Your task to perform on an android device: find which apps use the phone's location Image 0: 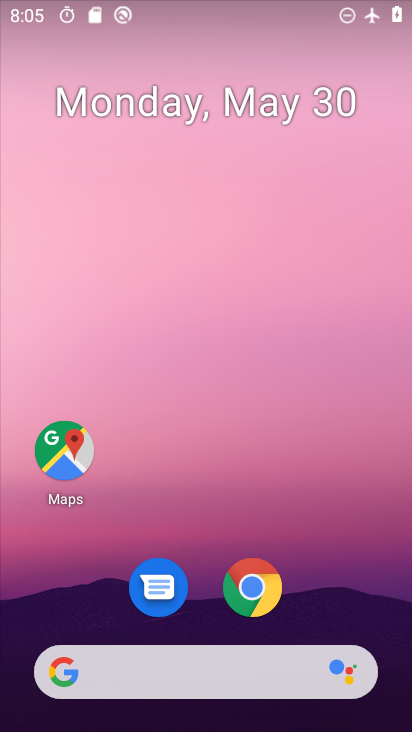
Step 0: drag from (324, 579) to (199, 39)
Your task to perform on an android device: find which apps use the phone's location Image 1: 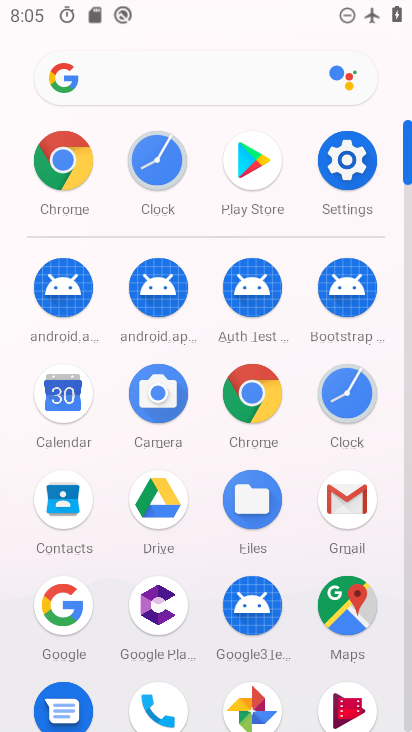
Step 1: drag from (16, 557) to (17, 179)
Your task to perform on an android device: find which apps use the phone's location Image 2: 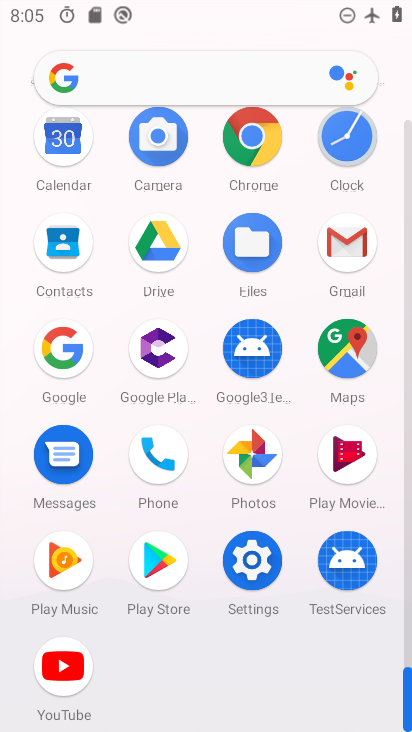
Step 2: click (250, 559)
Your task to perform on an android device: find which apps use the phone's location Image 3: 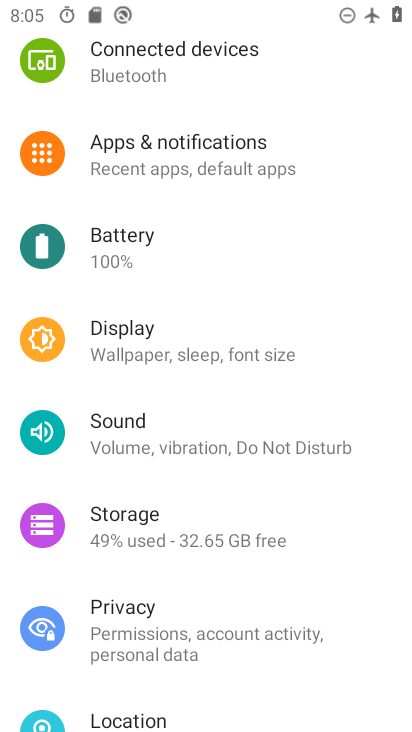
Step 3: drag from (188, 669) to (247, 358)
Your task to perform on an android device: find which apps use the phone's location Image 4: 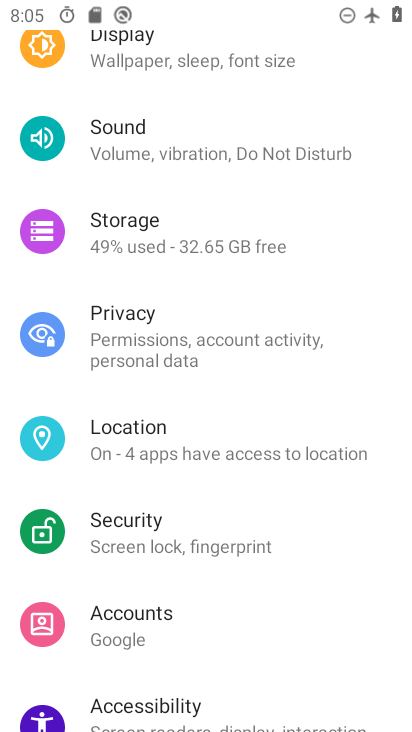
Step 4: drag from (254, 183) to (255, 656)
Your task to perform on an android device: find which apps use the phone's location Image 5: 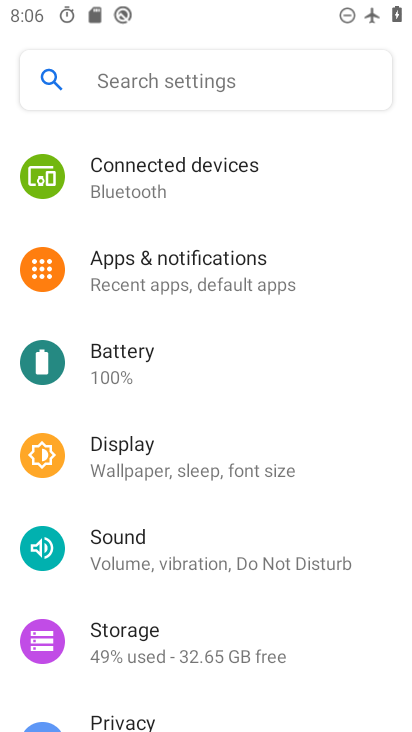
Step 5: click (232, 270)
Your task to perform on an android device: find which apps use the phone's location Image 6: 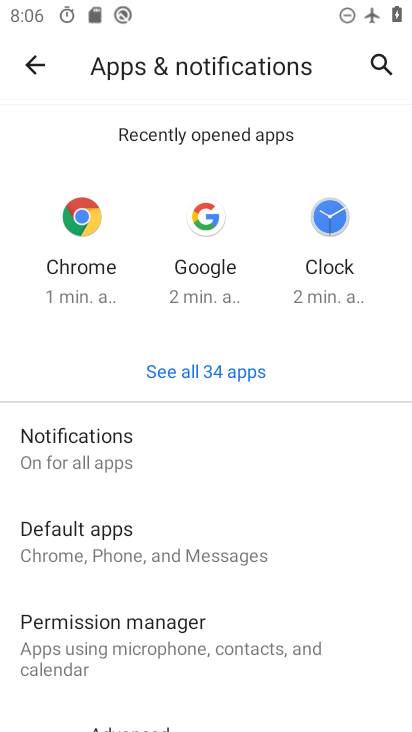
Step 6: press back button
Your task to perform on an android device: find which apps use the phone's location Image 7: 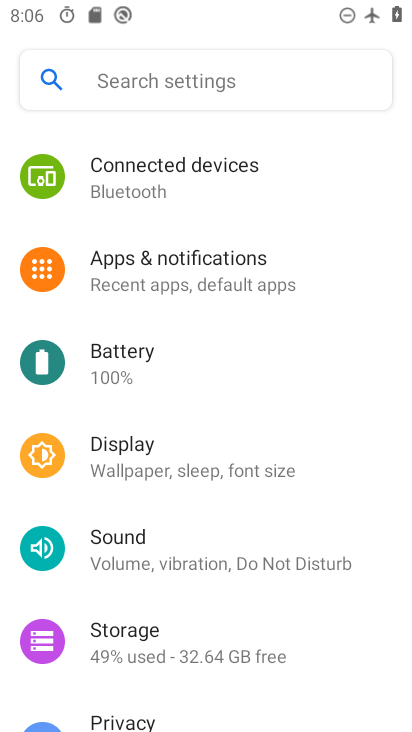
Step 7: drag from (296, 613) to (298, 208)
Your task to perform on an android device: find which apps use the phone's location Image 8: 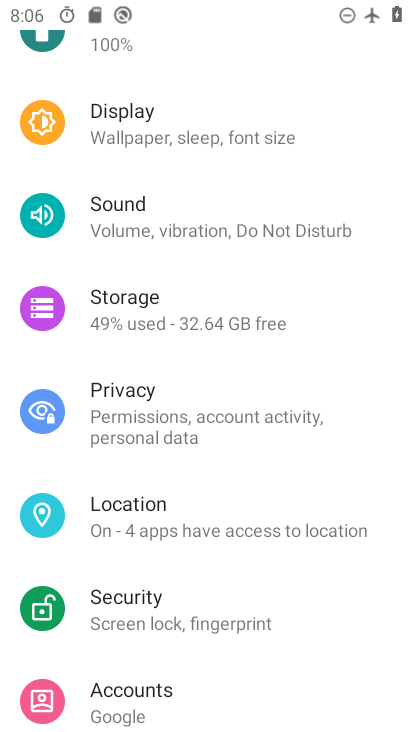
Step 8: click (187, 513)
Your task to perform on an android device: find which apps use the phone's location Image 9: 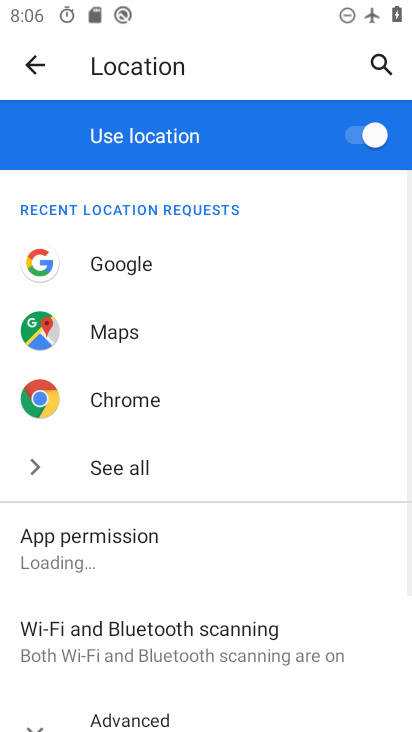
Step 9: drag from (250, 546) to (273, 101)
Your task to perform on an android device: find which apps use the phone's location Image 10: 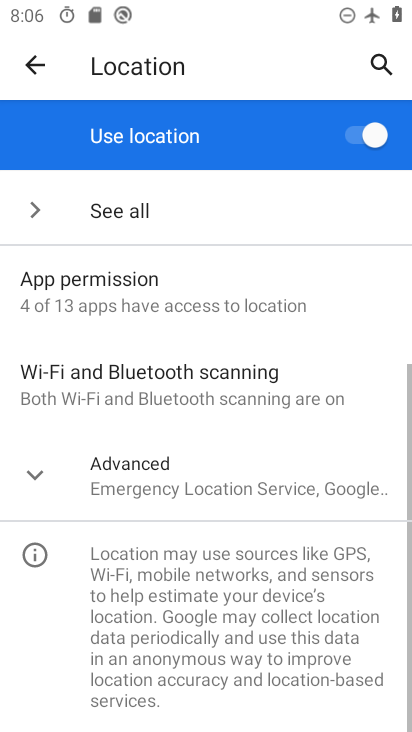
Step 10: click (34, 475)
Your task to perform on an android device: find which apps use the phone's location Image 11: 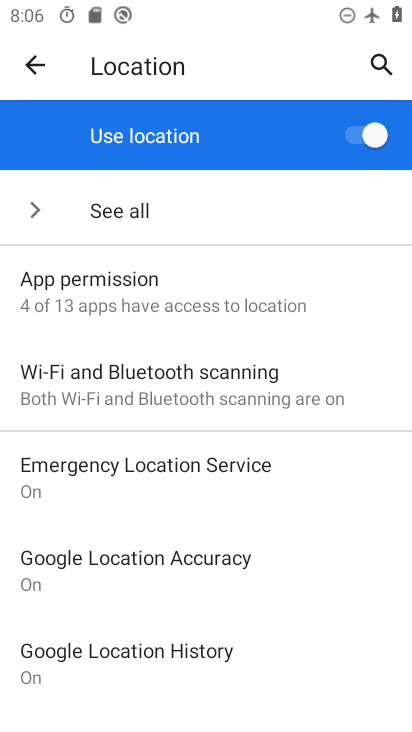
Step 11: click (180, 296)
Your task to perform on an android device: find which apps use the phone's location Image 12: 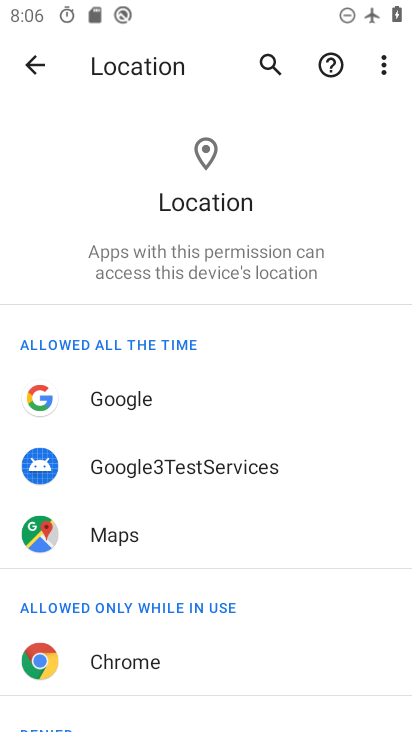
Step 12: task complete